Your task to perform on an android device: turn on airplane mode Image 0: 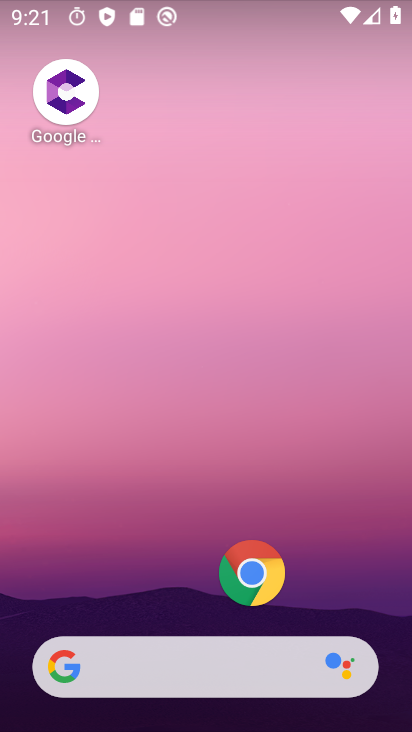
Step 0: drag from (145, 605) to (221, 6)
Your task to perform on an android device: turn on airplane mode Image 1: 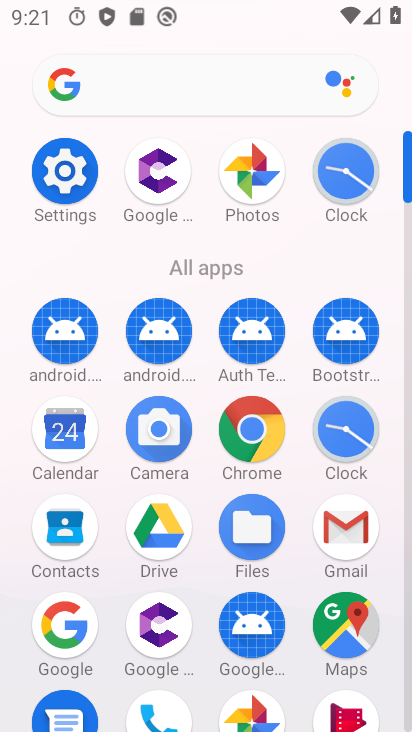
Step 1: click (54, 181)
Your task to perform on an android device: turn on airplane mode Image 2: 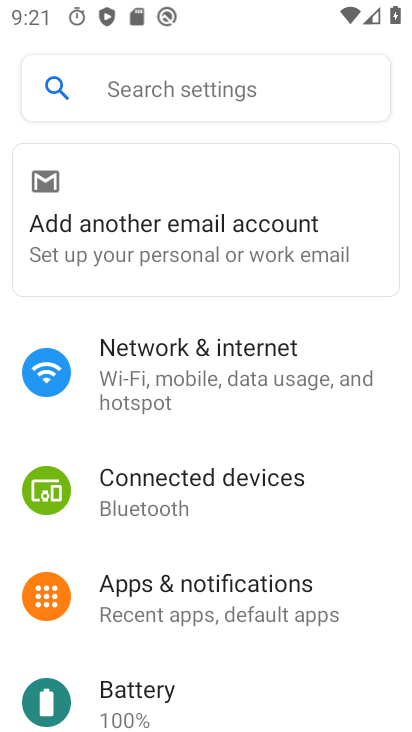
Step 2: click (174, 385)
Your task to perform on an android device: turn on airplane mode Image 3: 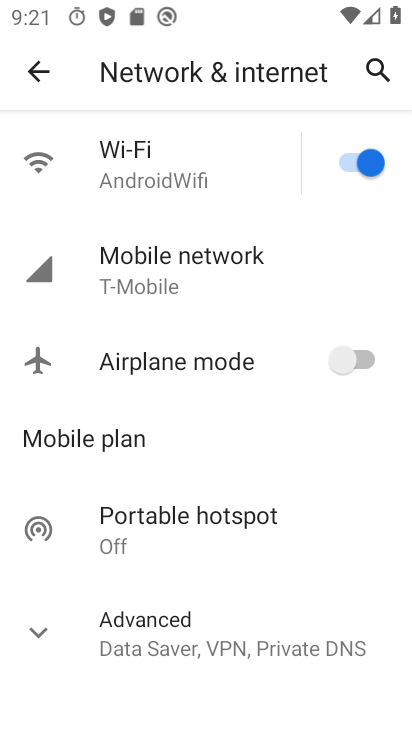
Step 3: click (296, 360)
Your task to perform on an android device: turn on airplane mode Image 4: 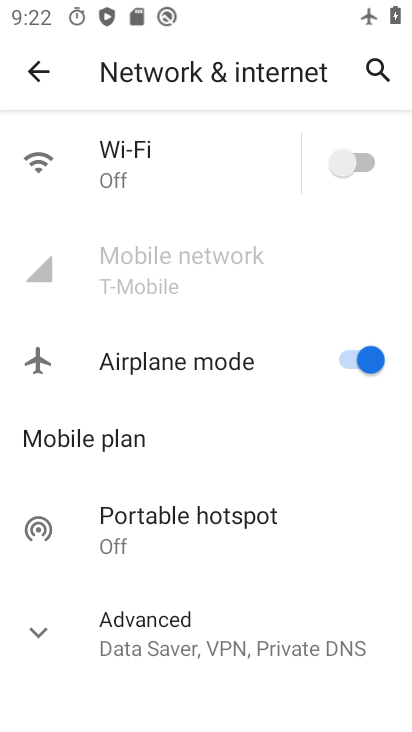
Step 4: task complete